Your task to perform on an android device: find which apps use the phone's location Image 0: 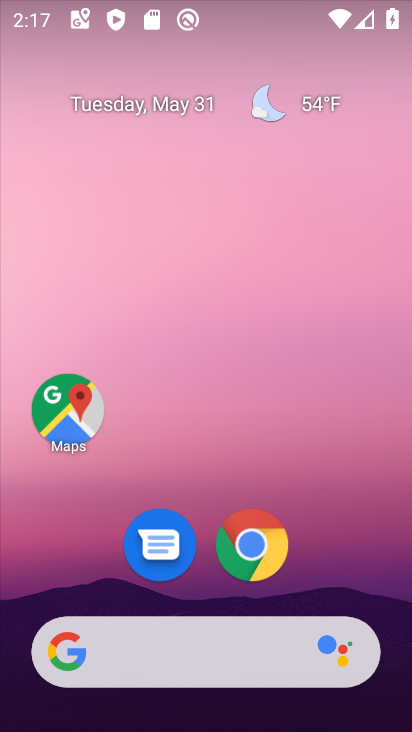
Step 0: drag from (341, 542) to (287, 100)
Your task to perform on an android device: find which apps use the phone's location Image 1: 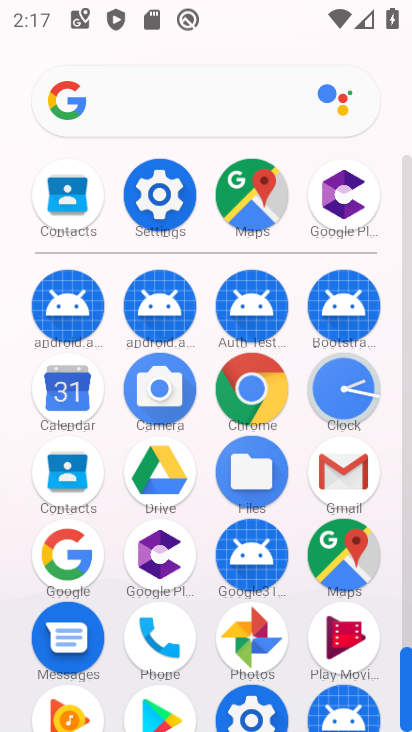
Step 1: click (160, 212)
Your task to perform on an android device: find which apps use the phone's location Image 2: 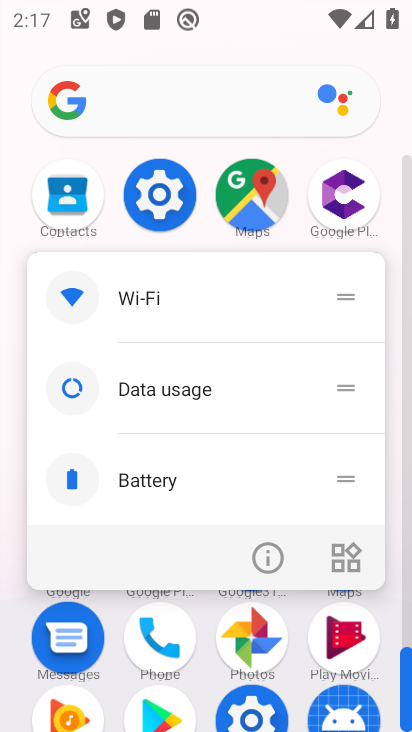
Step 2: click (160, 212)
Your task to perform on an android device: find which apps use the phone's location Image 3: 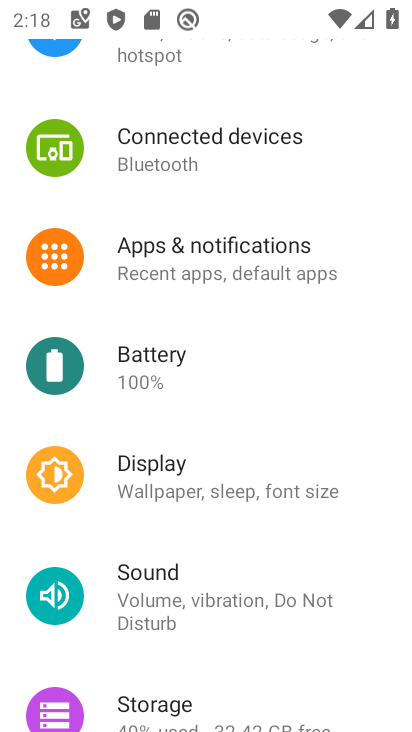
Step 3: drag from (184, 496) to (151, 123)
Your task to perform on an android device: find which apps use the phone's location Image 4: 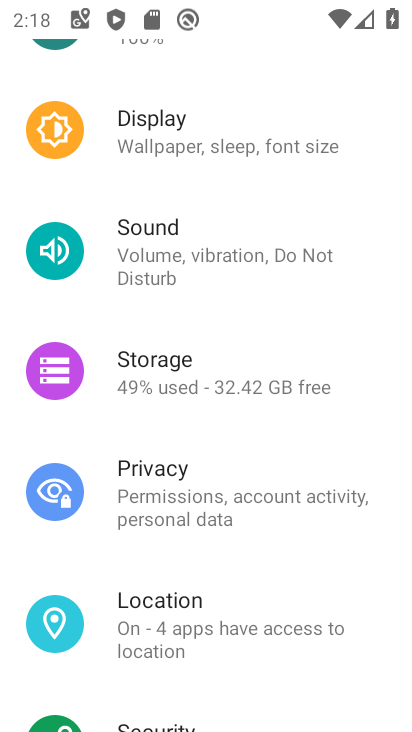
Step 4: click (180, 641)
Your task to perform on an android device: find which apps use the phone's location Image 5: 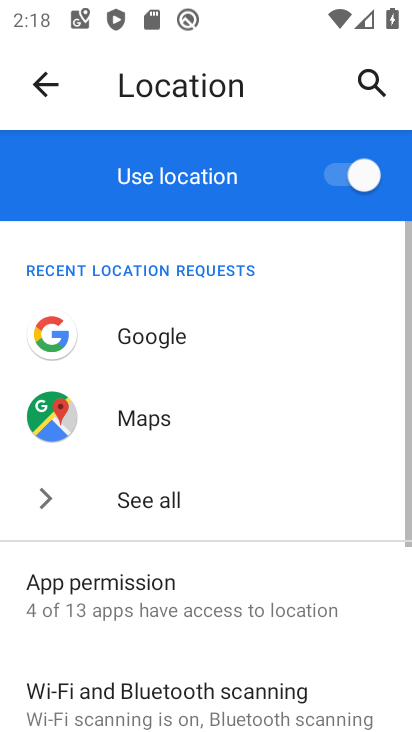
Step 5: click (173, 579)
Your task to perform on an android device: find which apps use the phone's location Image 6: 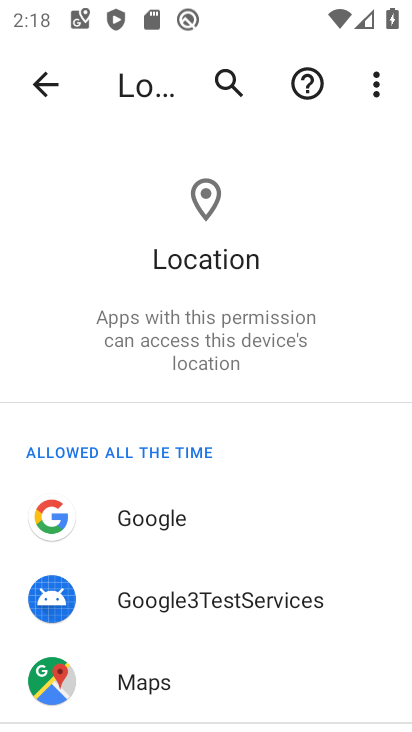
Step 6: task complete